Your task to perform on an android device: What's the weather going to be tomorrow? Image 0: 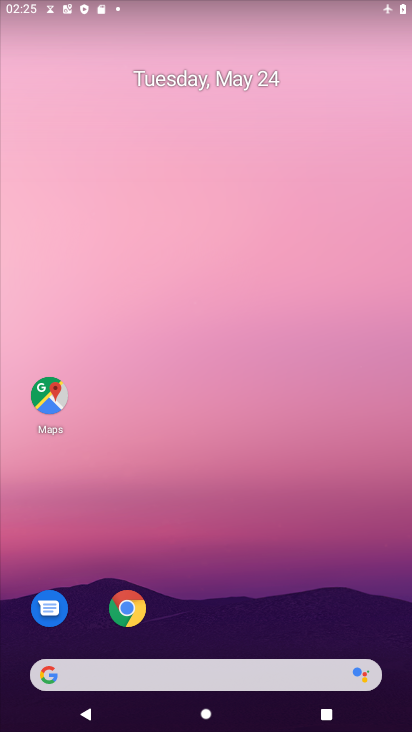
Step 0: drag from (235, 629) to (215, 143)
Your task to perform on an android device: What's the weather going to be tomorrow? Image 1: 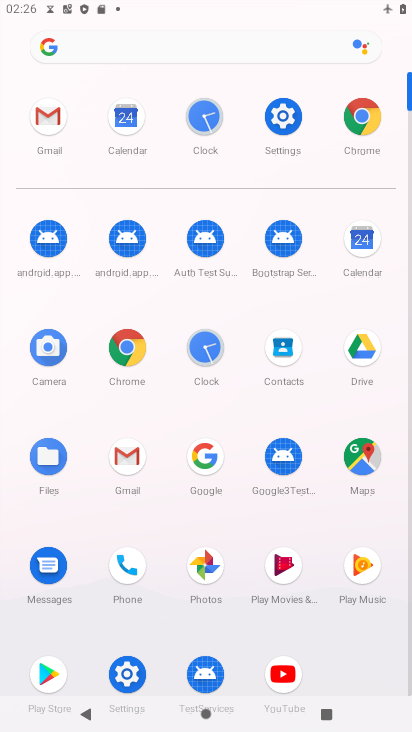
Step 1: click (355, 126)
Your task to perform on an android device: What's the weather going to be tomorrow? Image 2: 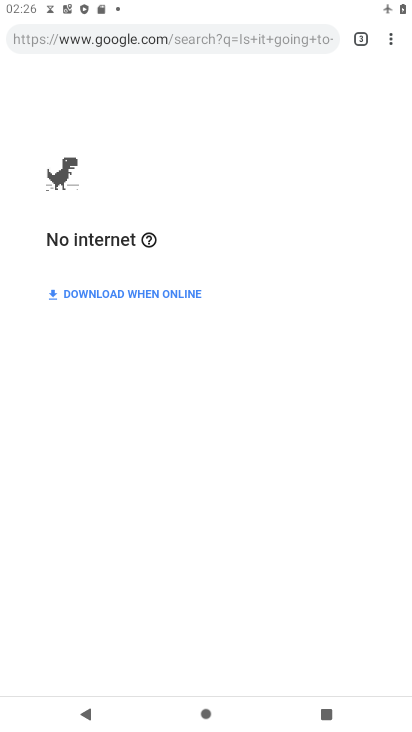
Step 2: click (248, 40)
Your task to perform on an android device: What's the weather going to be tomorrow? Image 3: 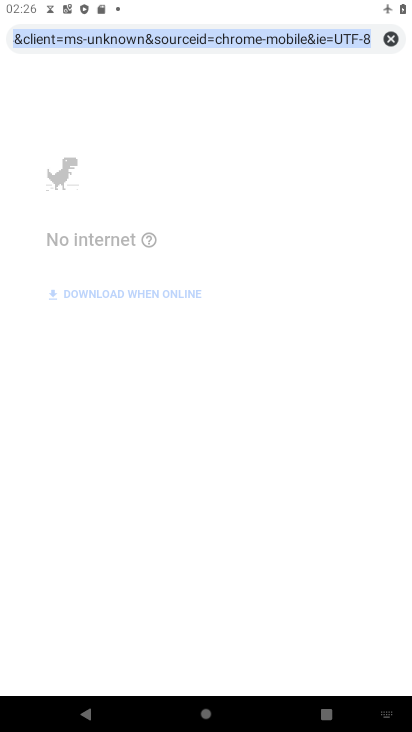
Step 3: type "What's the weather going to be tomorrow?"
Your task to perform on an android device: What's the weather going to be tomorrow? Image 4: 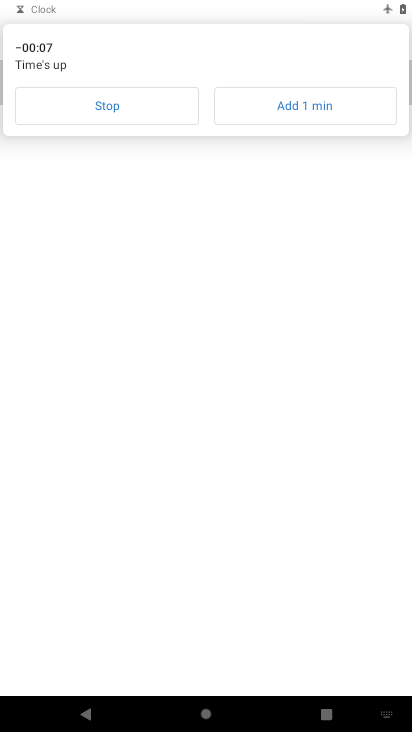
Step 4: click (141, 101)
Your task to perform on an android device: What's the weather going to be tomorrow? Image 5: 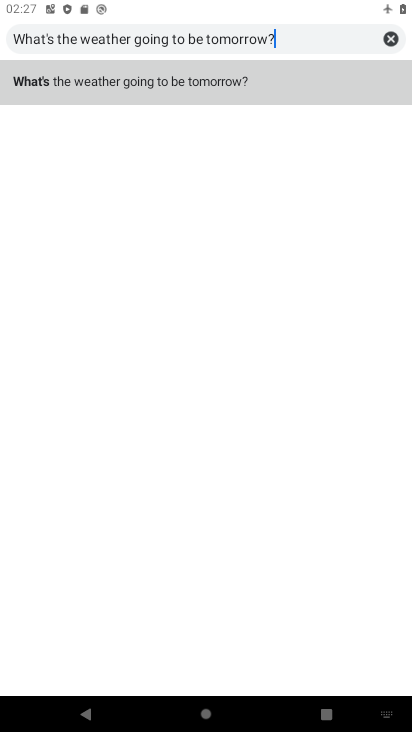
Step 5: click (140, 87)
Your task to perform on an android device: What's the weather going to be tomorrow? Image 6: 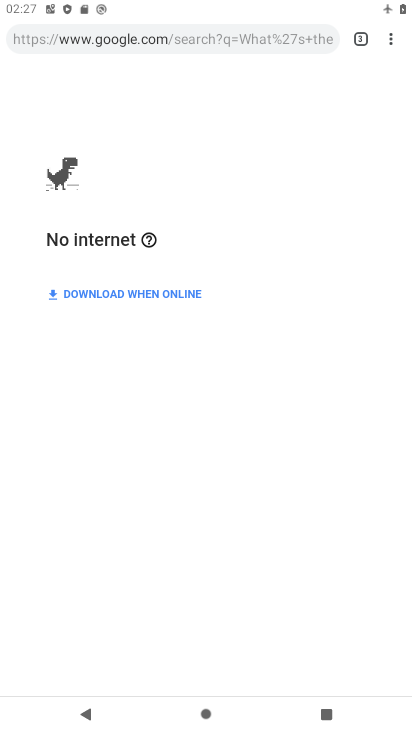
Step 6: task complete